Your task to perform on an android device: turn pop-ups off in chrome Image 0: 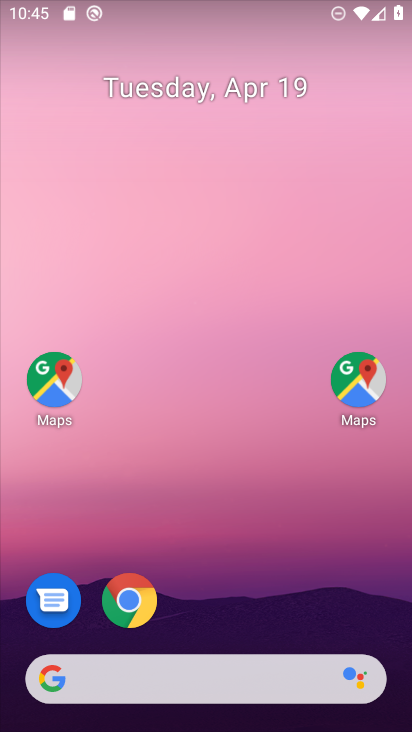
Step 0: drag from (272, 543) to (247, 41)
Your task to perform on an android device: turn pop-ups off in chrome Image 1: 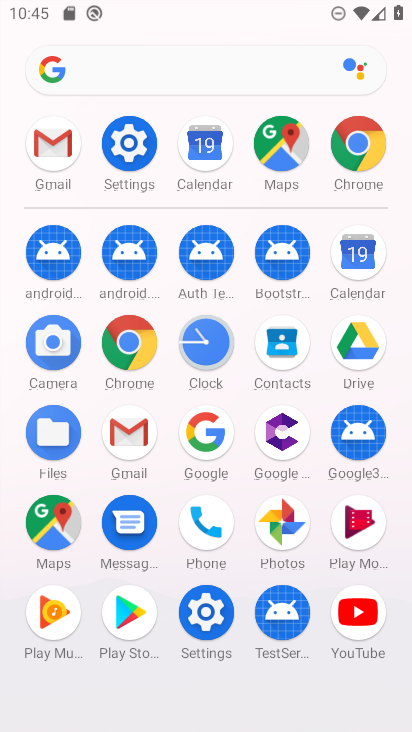
Step 1: click (126, 359)
Your task to perform on an android device: turn pop-ups off in chrome Image 2: 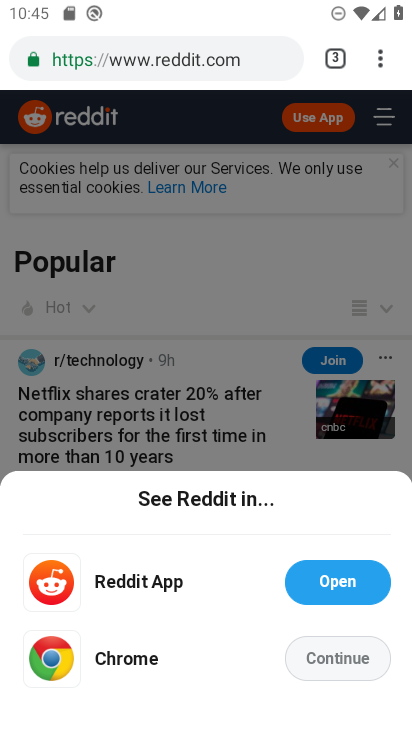
Step 2: click (233, 419)
Your task to perform on an android device: turn pop-ups off in chrome Image 3: 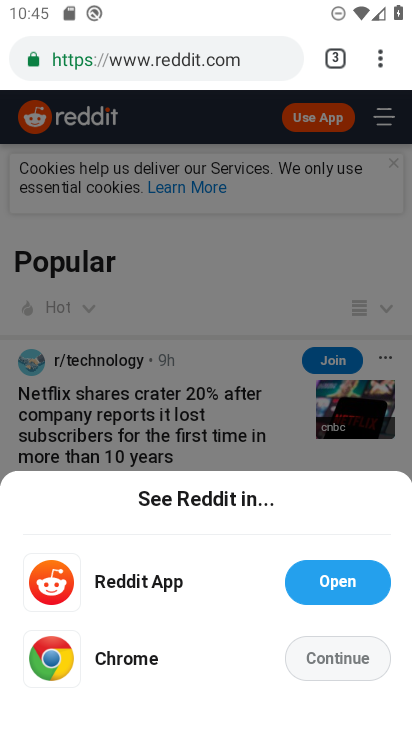
Step 3: press back button
Your task to perform on an android device: turn pop-ups off in chrome Image 4: 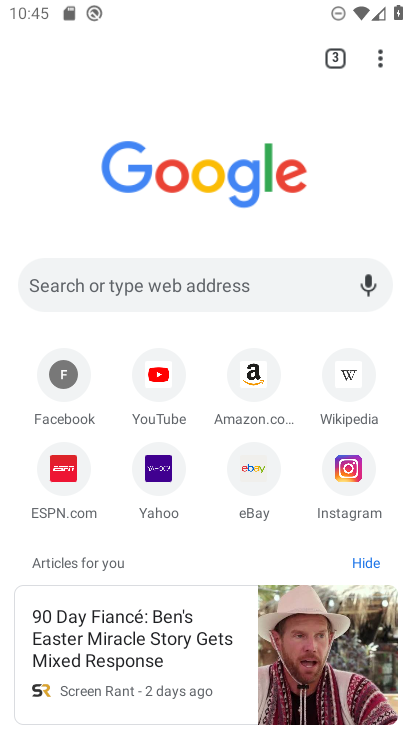
Step 4: click (380, 57)
Your task to perform on an android device: turn pop-ups off in chrome Image 5: 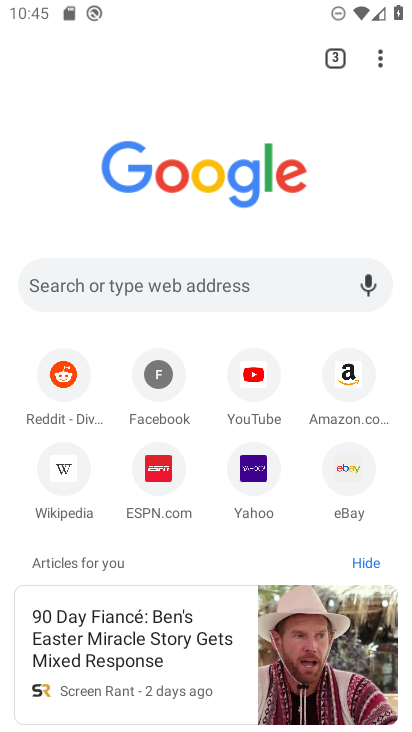
Step 5: click (375, 54)
Your task to perform on an android device: turn pop-ups off in chrome Image 6: 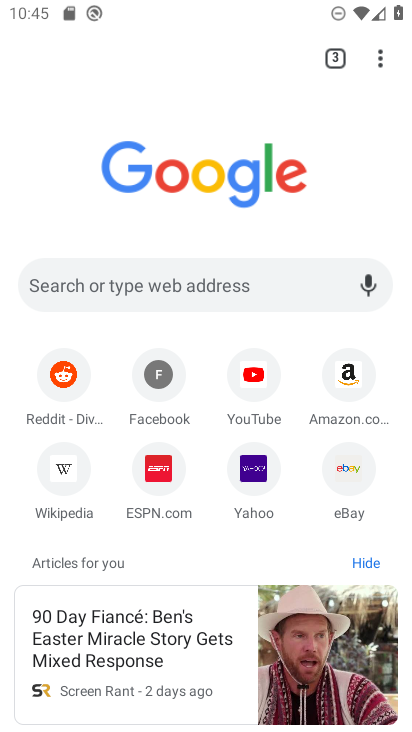
Step 6: click (373, 50)
Your task to perform on an android device: turn pop-ups off in chrome Image 7: 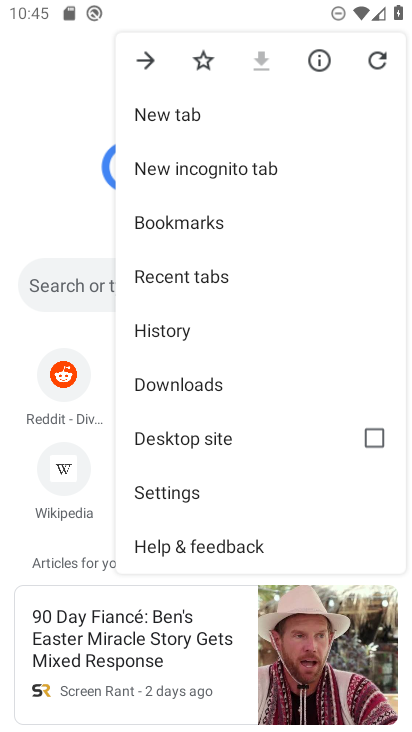
Step 7: click (192, 491)
Your task to perform on an android device: turn pop-ups off in chrome Image 8: 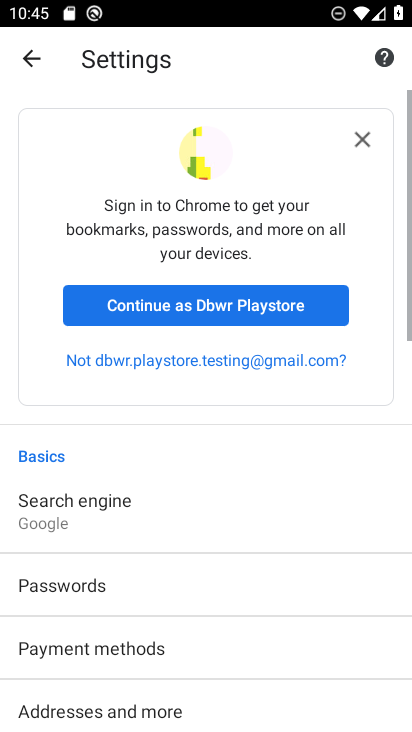
Step 8: drag from (170, 591) to (178, 59)
Your task to perform on an android device: turn pop-ups off in chrome Image 9: 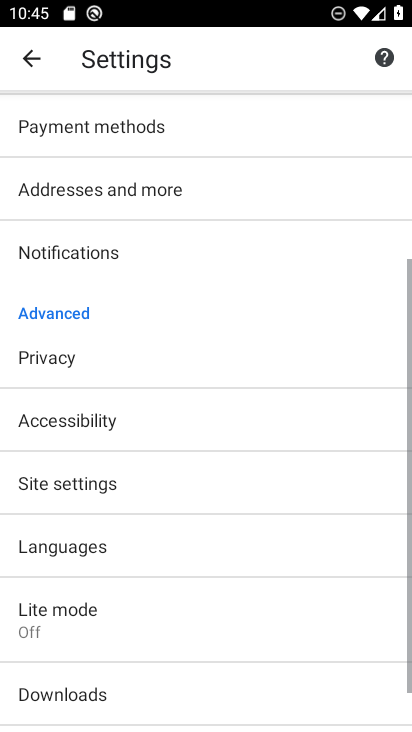
Step 9: drag from (141, 704) to (184, 100)
Your task to perform on an android device: turn pop-ups off in chrome Image 10: 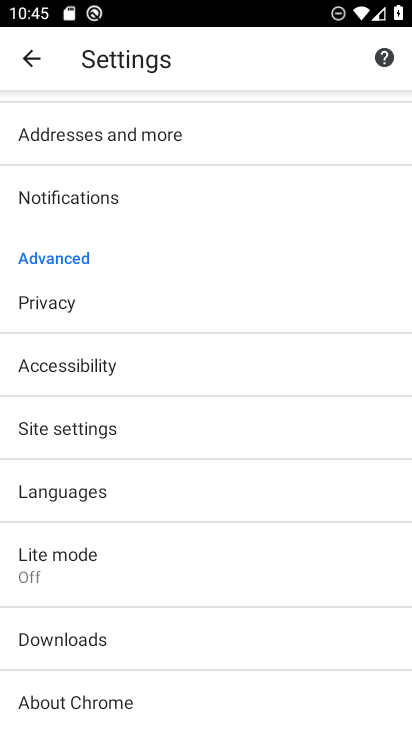
Step 10: click (82, 427)
Your task to perform on an android device: turn pop-ups off in chrome Image 11: 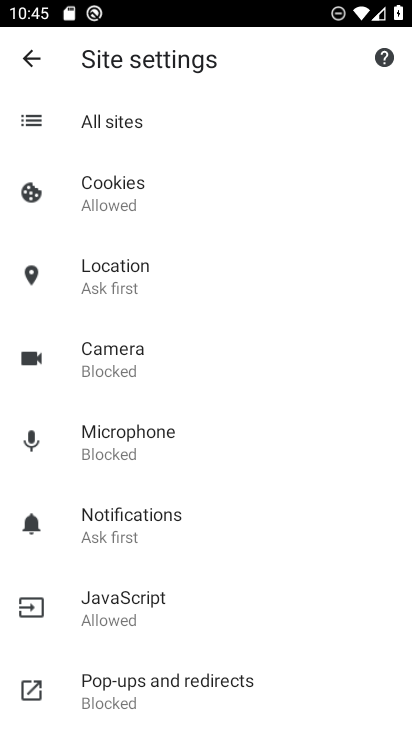
Step 11: click (148, 688)
Your task to perform on an android device: turn pop-ups off in chrome Image 12: 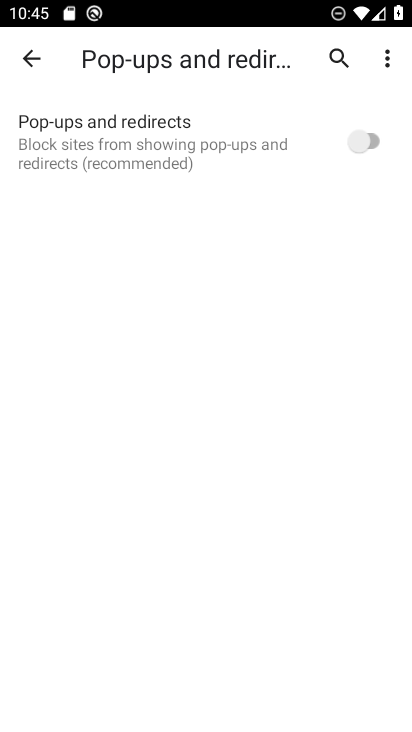
Step 12: task complete